Your task to perform on an android device: open the mobile data screen to see how much data has been used Image 0: 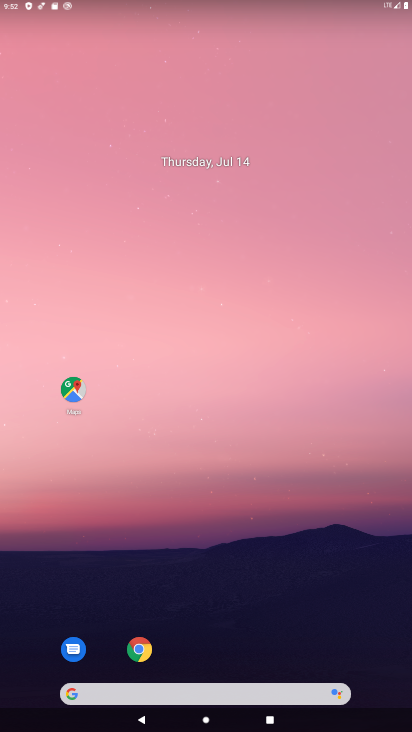
Step 0: click (194, 118)
Your task to perform on an android device: open the mobile data screen to see how much data has been used Image 1: 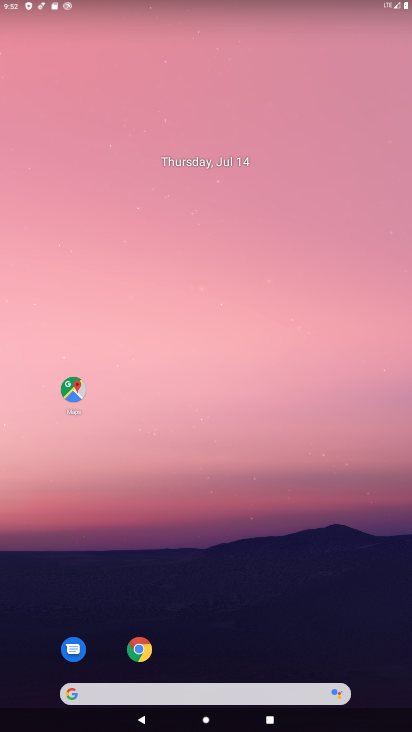
Step 1: drag from (190, 653) to (237, 223)
Your task to perform on an android device: open the mobile data screen to see how much data has been used Image 2: 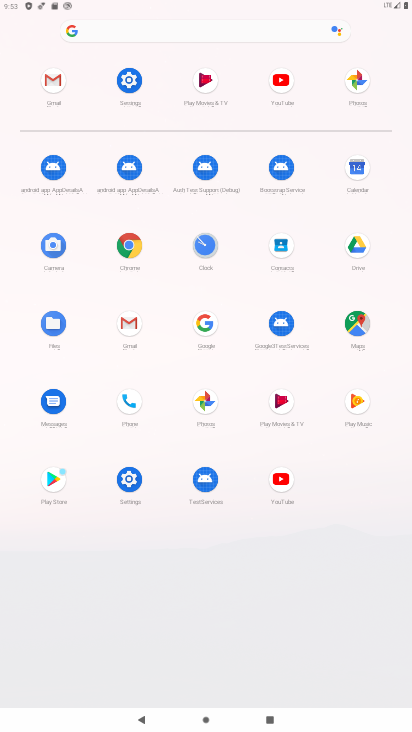
Step 2: click (130, 93)
Your task to perform on an android device: open the mobile data screen to see how much data has been used Image 3: 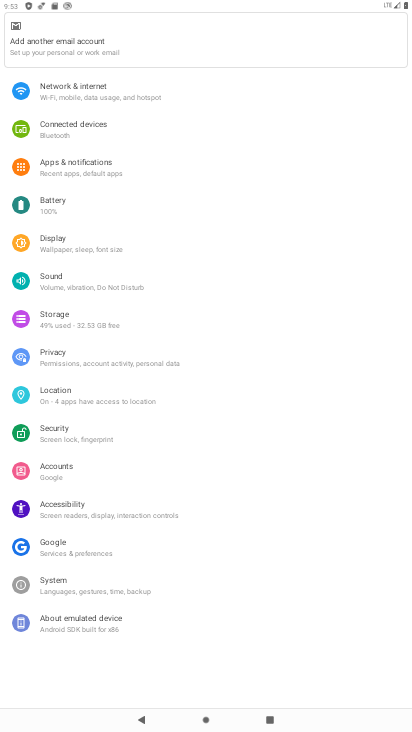
Step 3: click (85, 101)
Your task to perform on an android device: open the mobile data screen to see how much data has been used Image 4: 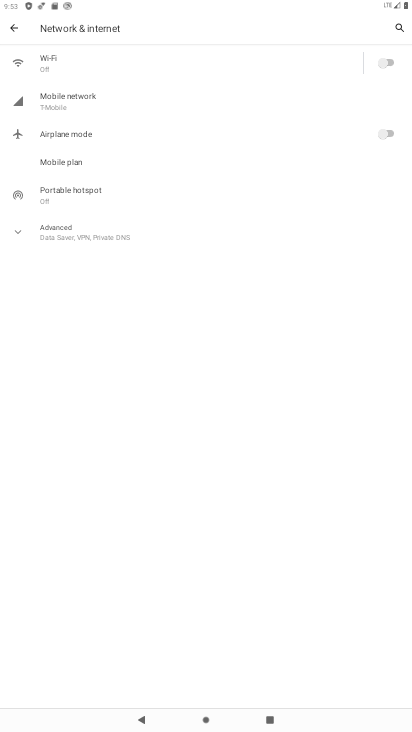
Step 4: click (91, 111)
Your task to perform on an android device: open the mobile data screen to see how much data has been used Image 5: 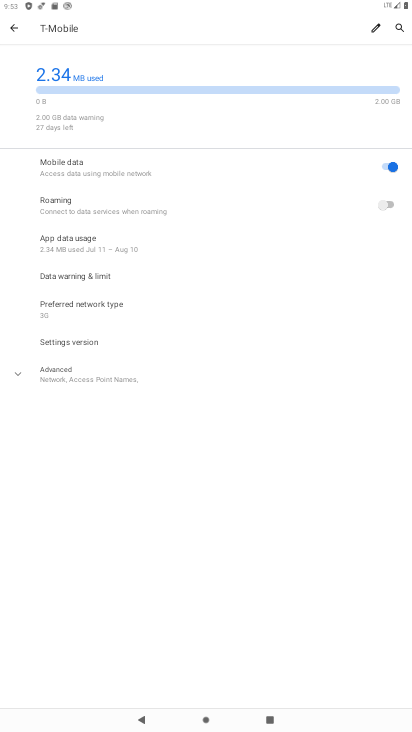
Step 5: click (94, 161)
Your task to perform on an android device: open the mobile data screen to see how much data has been used Image 6: 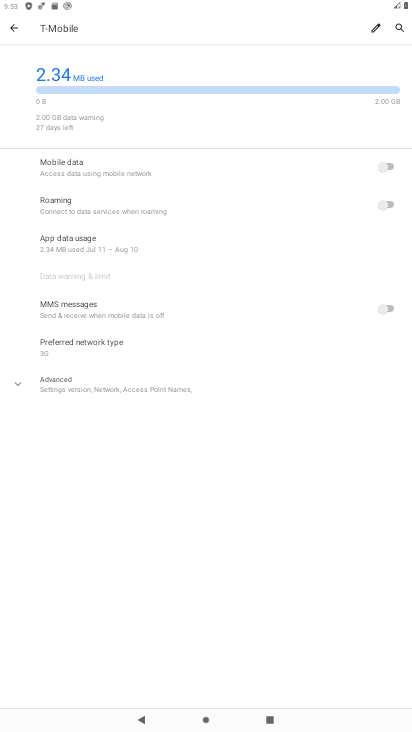
Step 6: click (94, 168)
Your task to perform on an android device: open the mobile data screen to see how much data has been used Image 7: 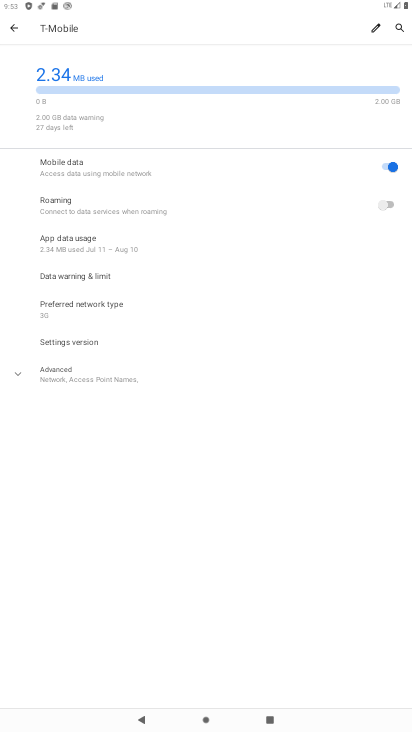
Step 7: task complete